Your task to perform on an android device: change the upload size in google photos Image 0: 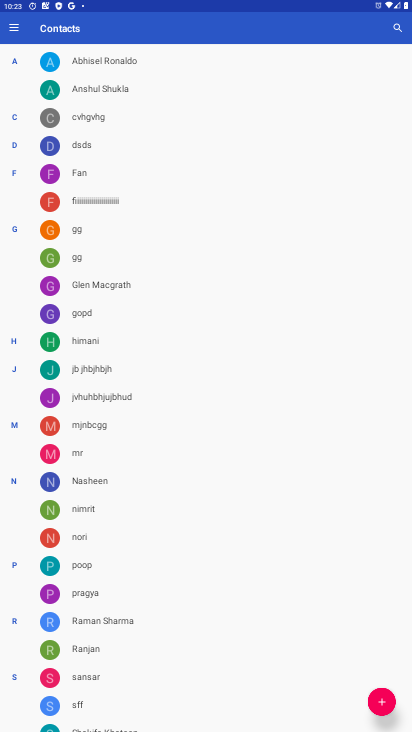
Step 0: press home button
Your task to perform on an android device: change the upload size in google photos Image 1: 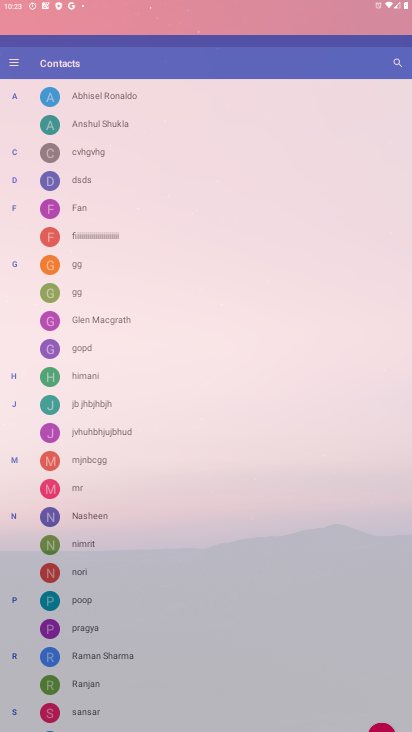
Step 1: drag from (102, 613) to (209, 72)
Your task to perform on an android device: change the upload size in google photos Image 2: 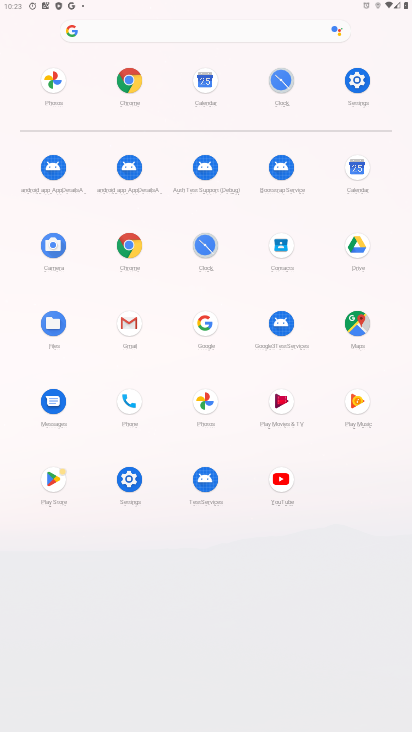
Step 2: click (204, 398)
Your task to perform on an android device: change the upload size in google photos Image 3: 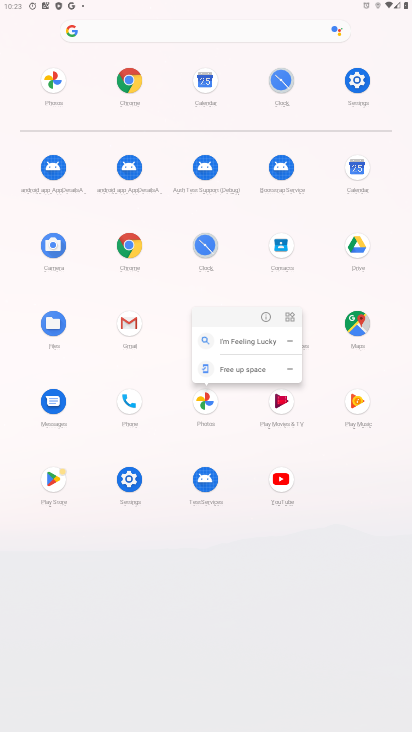
Step 3: click (267, 317)
Your task to perform on an android device: change the upload size in google photos Image 4: 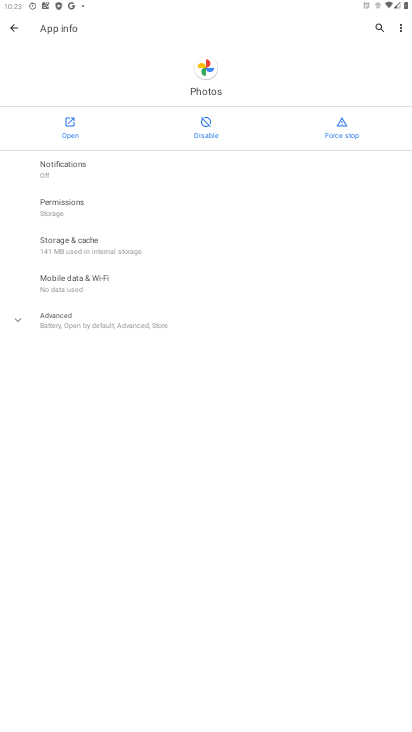
Step 4: click (73, 124)
Your task to perform on an android device: change the upload size in google photos Image 5: 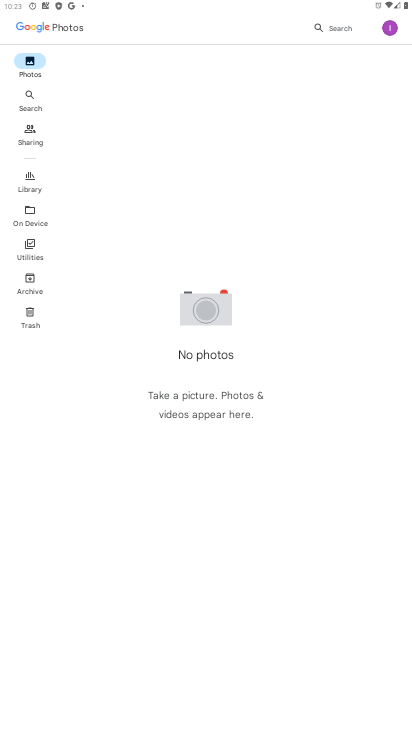
Step 5: click (390, 33)
Your task to perform on an android device: change the upload size in google photos Image 6: 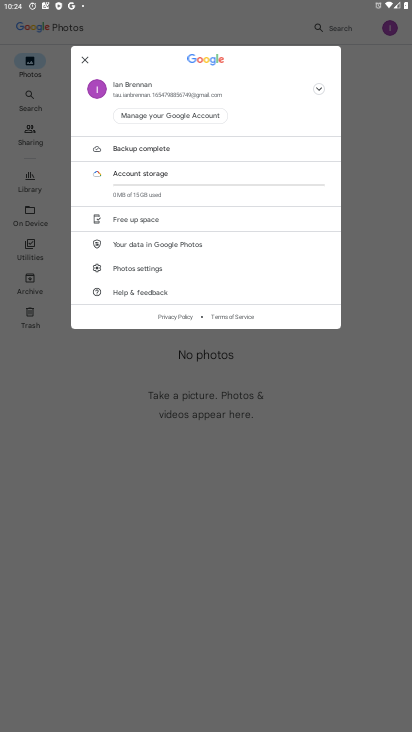
Step 6: click (123, 265)
Your task to perform on an android device: change the upload size in google photos Image 7: 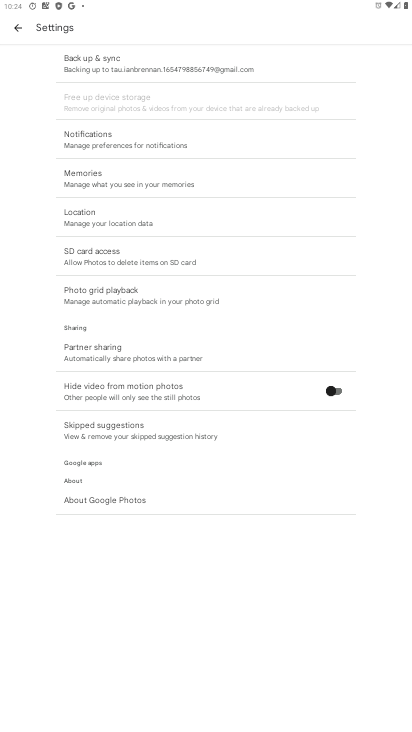
Step 7: click (142, 64)
Your task to perform on an android device: change the upload size in google photos Image 8: 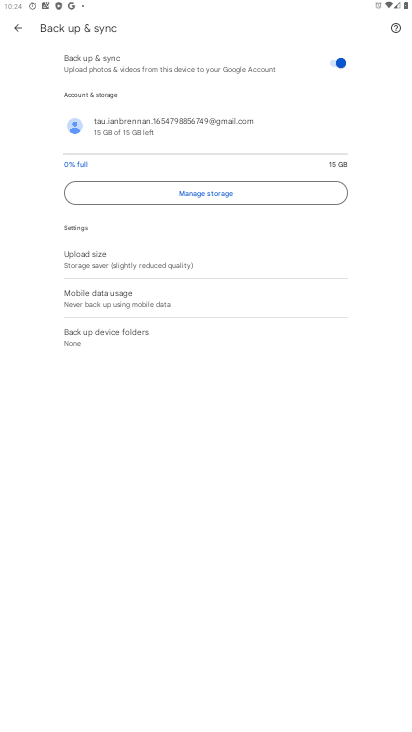
Step 8: click (132, 266)
Your task to perform on an android device: change the upload size in google photos Image 9: 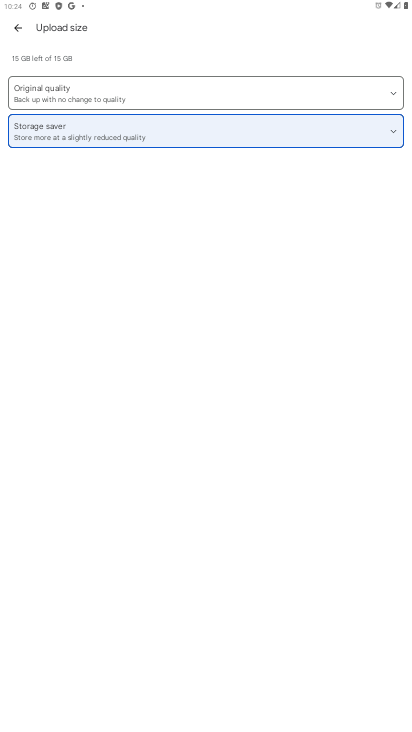
Step 9: click (142, 91)
Your task to perform on an android device: change the upload size in google photos Image 10: 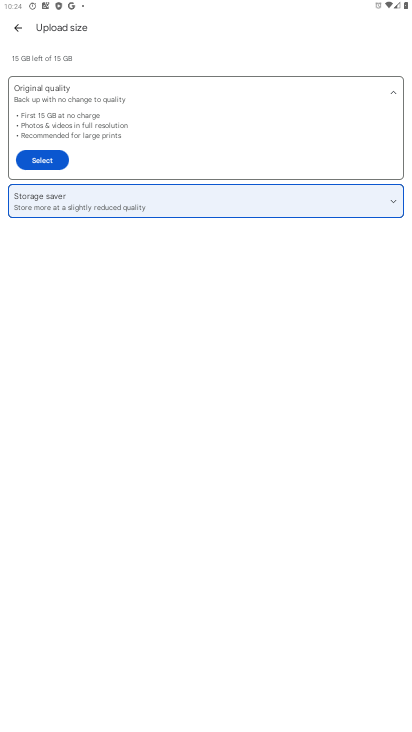
Step 10: click (43, 157)
Your task to perform on an android device: change the upload size in google photos Image 11: 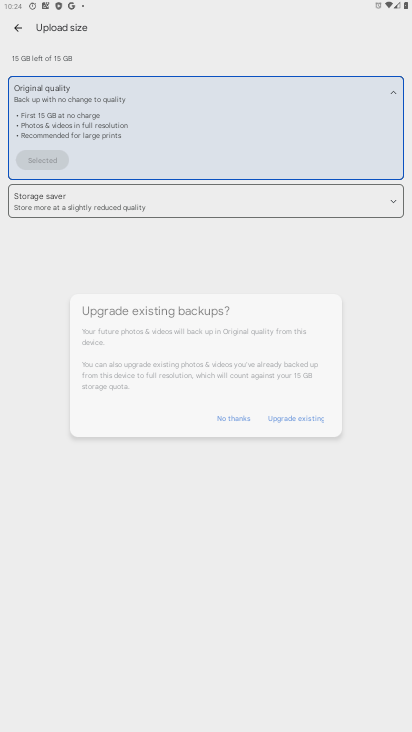
Step 11: task complete